Your task to perform on an android device: Open calendar and show me the second week of next month Image 0: 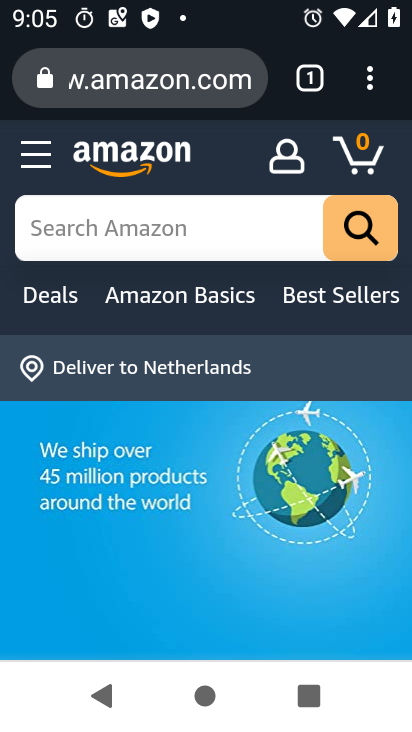
Step 0: press home button
Your task to perform on an android device: Open calendar and show me the second week of next month Image 1: 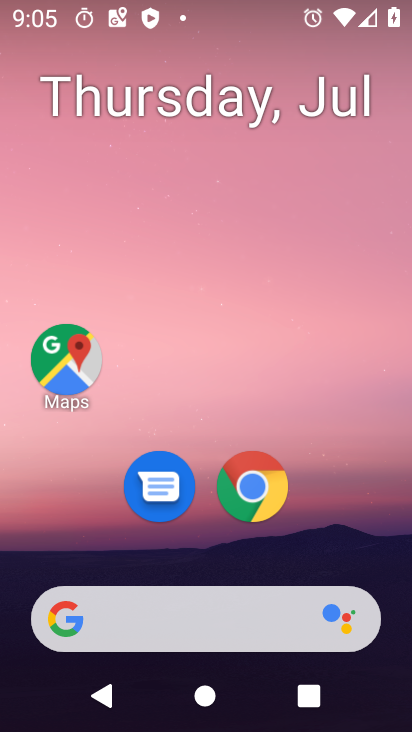
Step 1: drag from (217, 617) to (224, 160)
Your task to perform on an android device: Open calendar and show me the second week of next month Image 2: 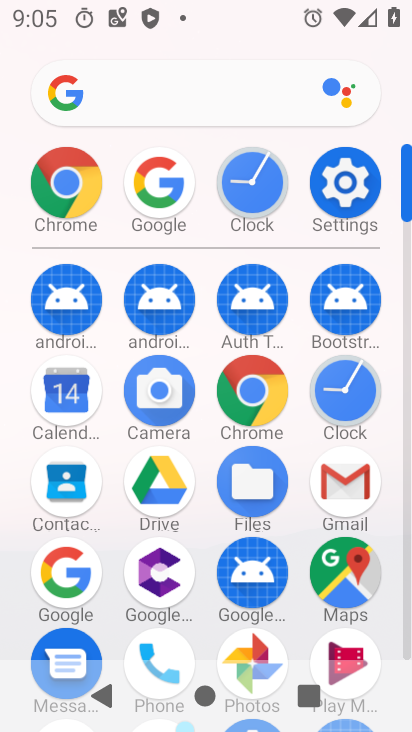
Step 2: click (79, 399)
Your task to perform on an android device: Open calendar and show me the second week of next month Image 3: 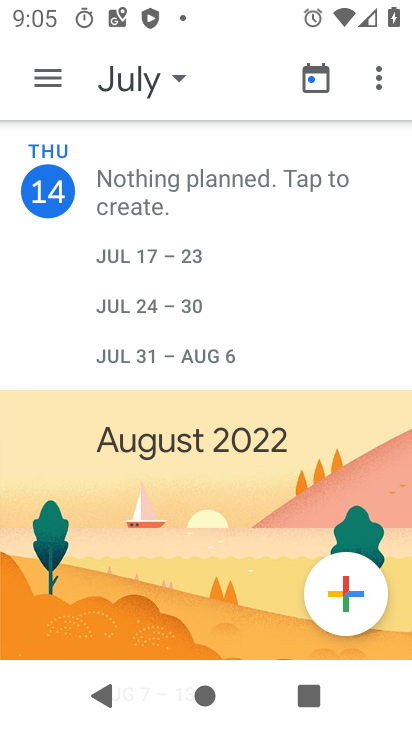
Step 3: click (167, 84)
Your task to perform on an android device: Open calendar and show me the second week of next month Image 4: 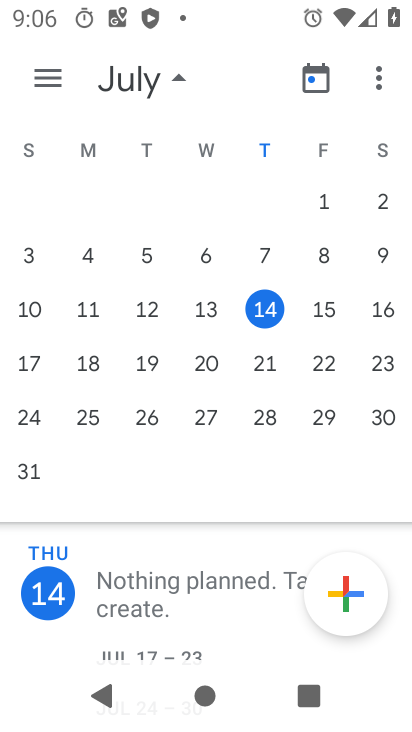
Step 4: drag from (347, 371) to (22, 303)
Your task to perform on an android device: Open calendar and show me the second week of next month Image 5: 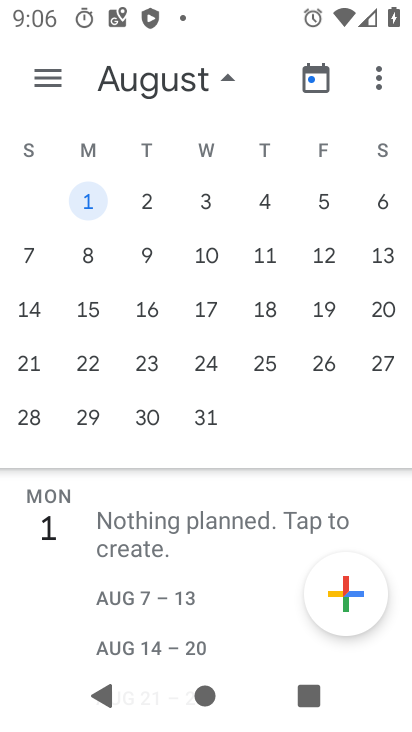
Step 5: click (88, 203)
Your task to perform on an android device: Open calendar and show me the second week of next month Image 6: 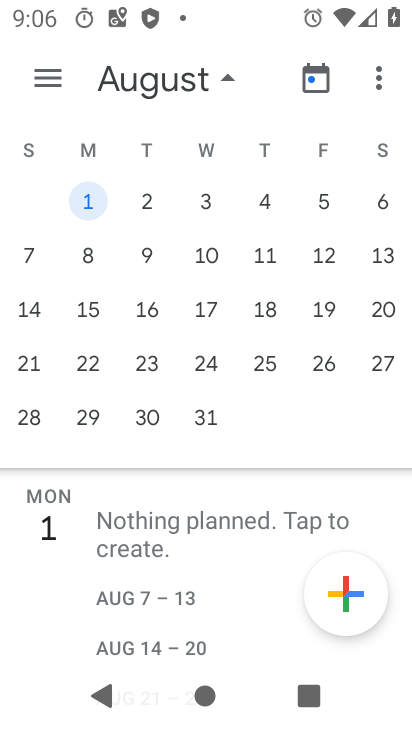
Step 6: task complete